Your task to perform on an android device: turn notification dots off Image 0: 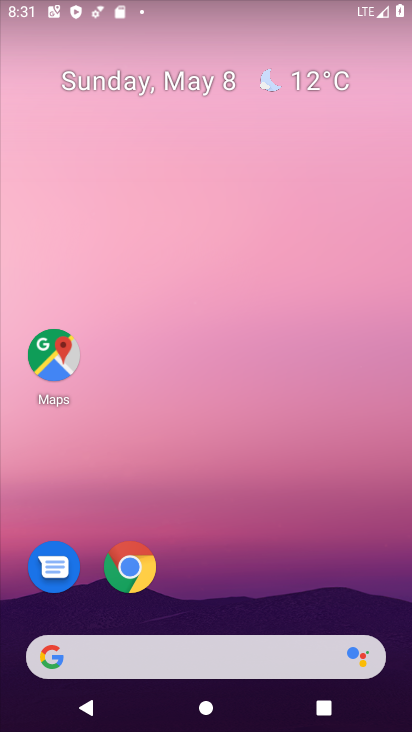
Step 0: drag from (238, 663) to (209, 54)
Your task to perform on an android device: turn notification dots off Image 1: 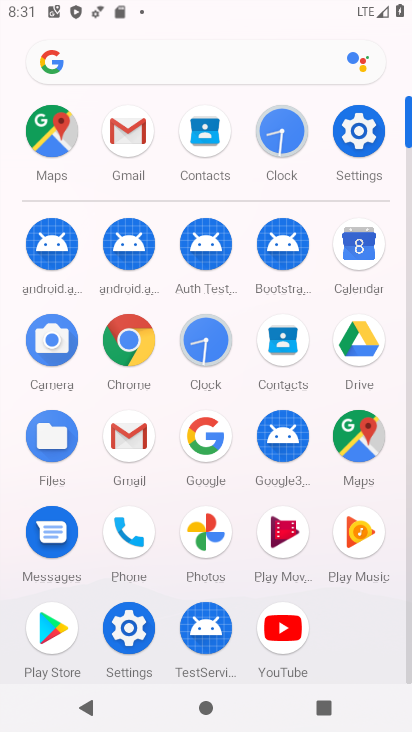
Step 1: click (124, 631)
Your task to perform on an android device: turn notification dots off Image 2: 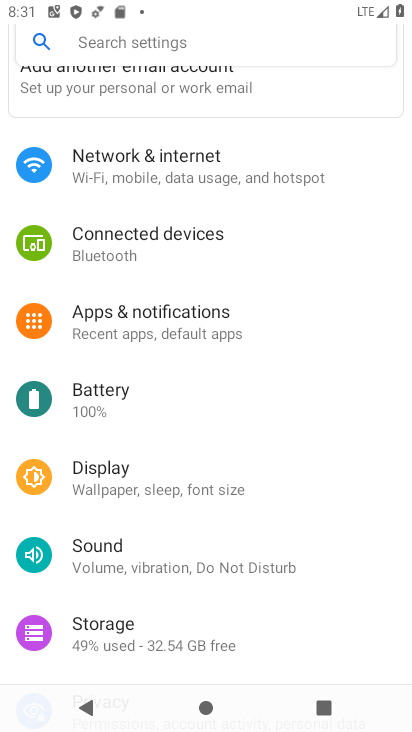
Step 2: click (205, 321)
Your task to perform on an android device: turn notification dots off Image 3: 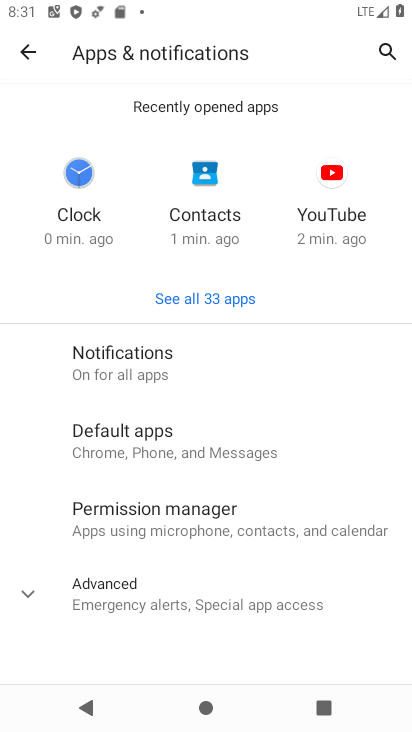
Step 3: click (156, 368)
Your task to perform on an android device: turn notification dots off Image 4: 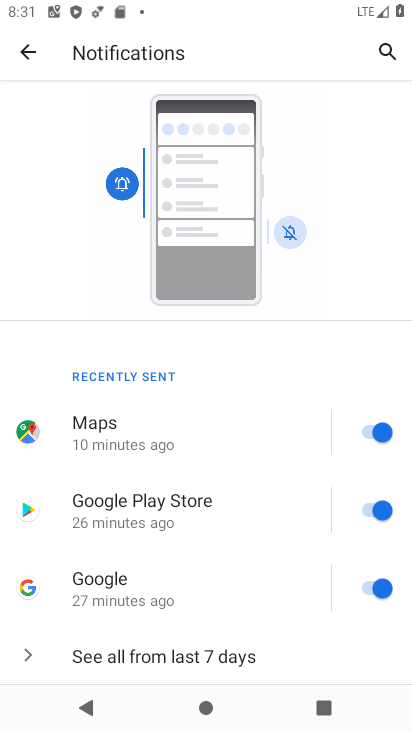
Step 4: drag from (193, 571) to (108, 27)
Your task to perform on an android device: turn notification dots off Image 5: 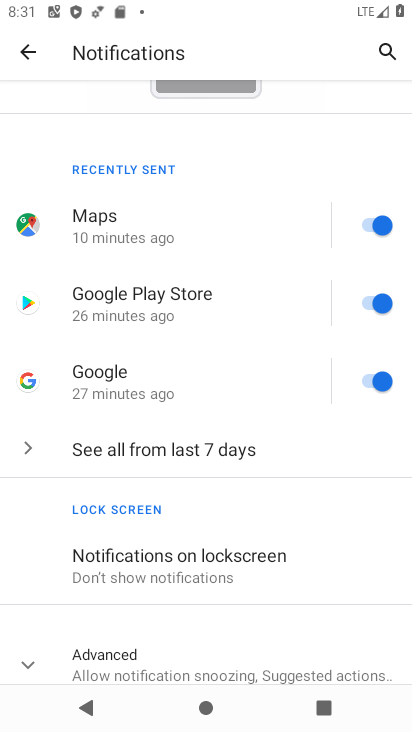
Step 5: click (233, 665)
Your task to perform on an android device: turn notification dots off Image 6: 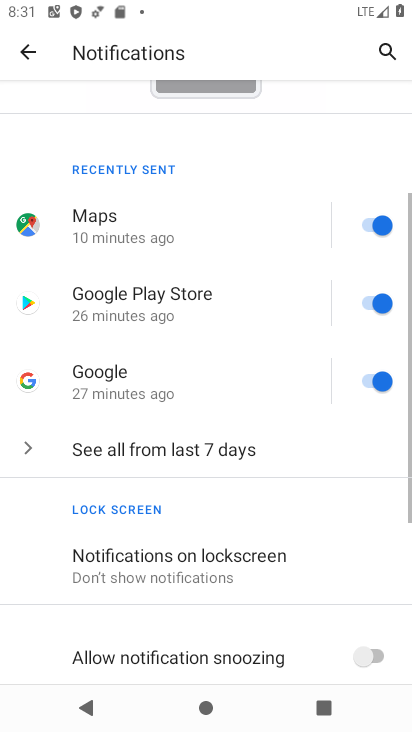
Step 6: task complete